Your task to perform on an android device: Show the shopping cart on costco.com. Image 0: 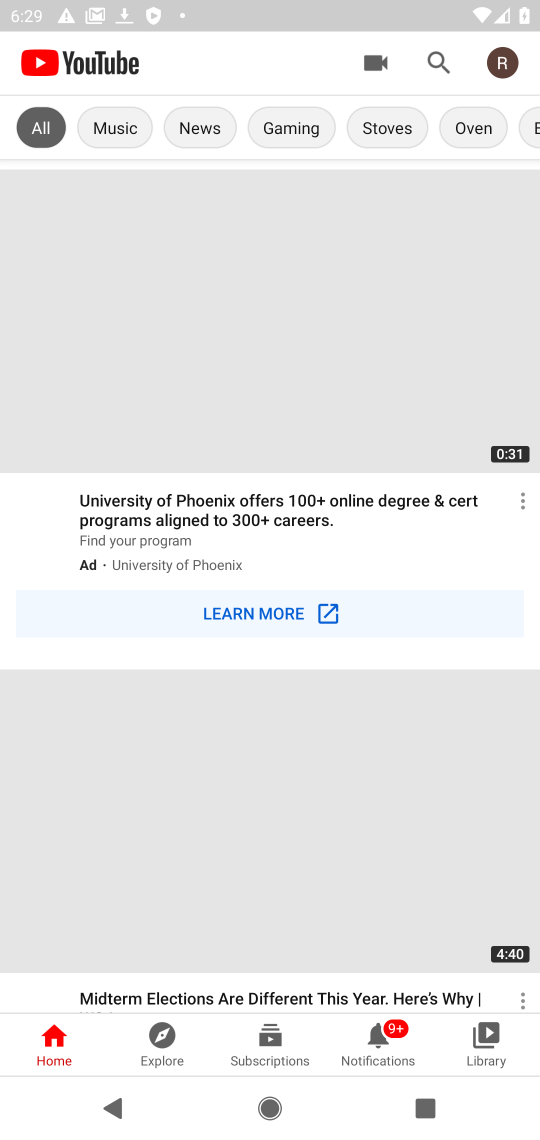
Step 0: press home button
Your task to perform on an android device: Show the shopping cart on costco.com. Image 1: 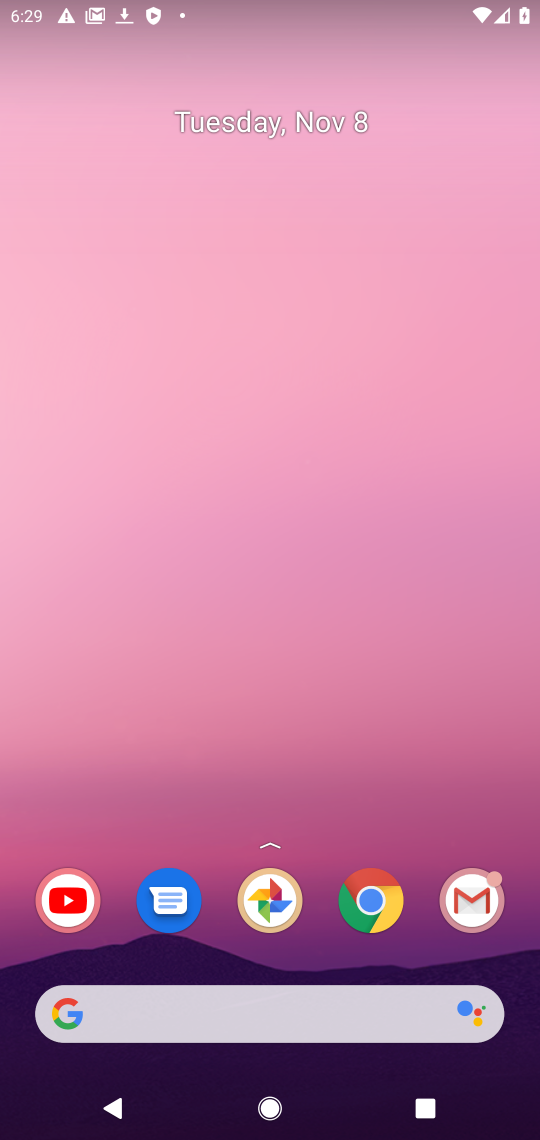
Step 1: click (362, 906)
Your task to perform on an android device: Show the shopping cart on costco.com. Image 2: 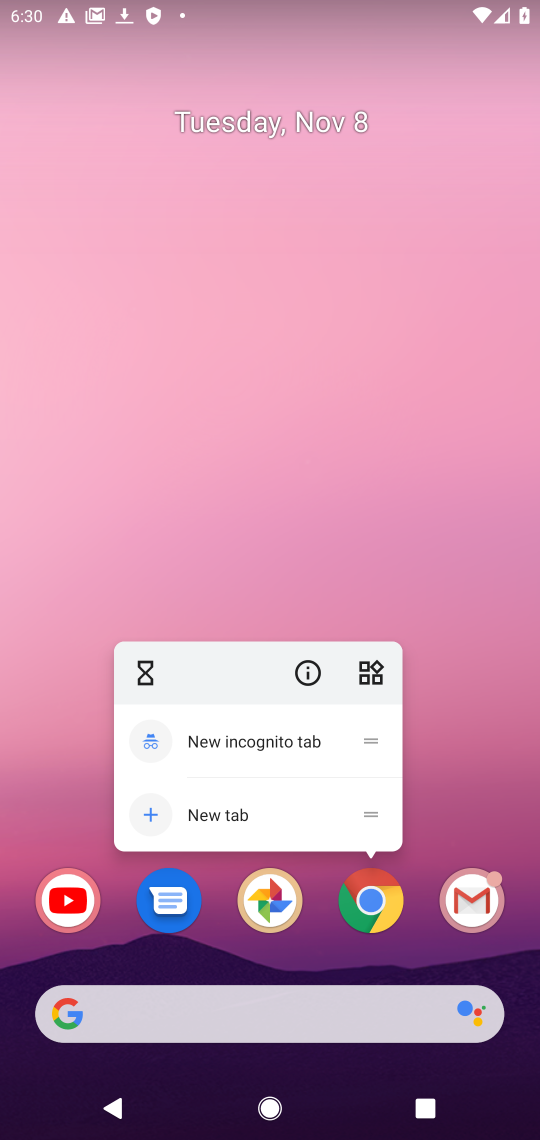
Step 2: click (387, 906)
Your task to perform on an android device: Show the shopping cart on costco.com. Image 3: 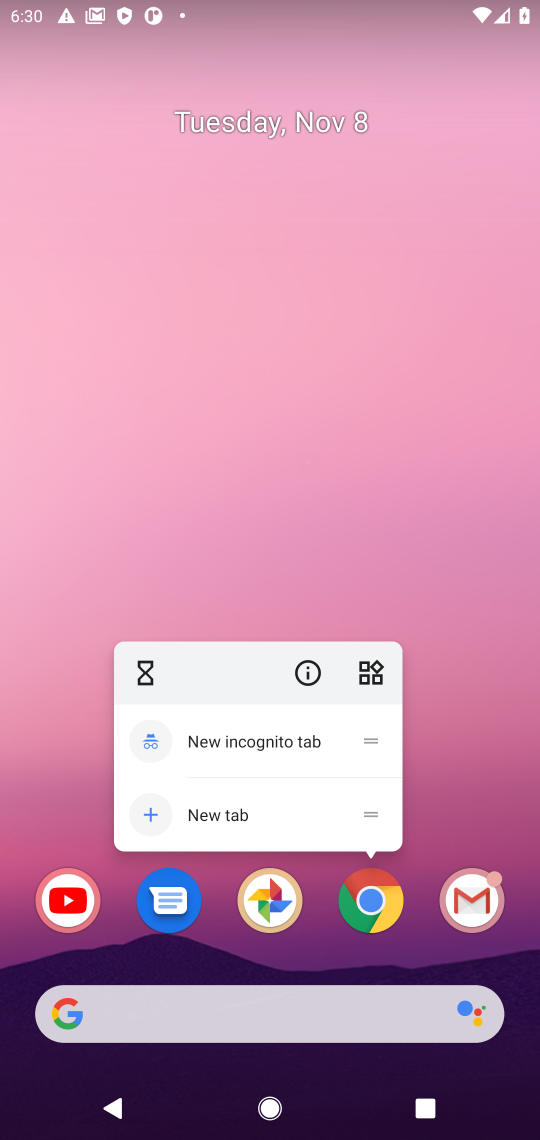
Step 3: click (393, 901)
Your task to perform on an android device: Show the shopping cart on costco.com. Image 4: 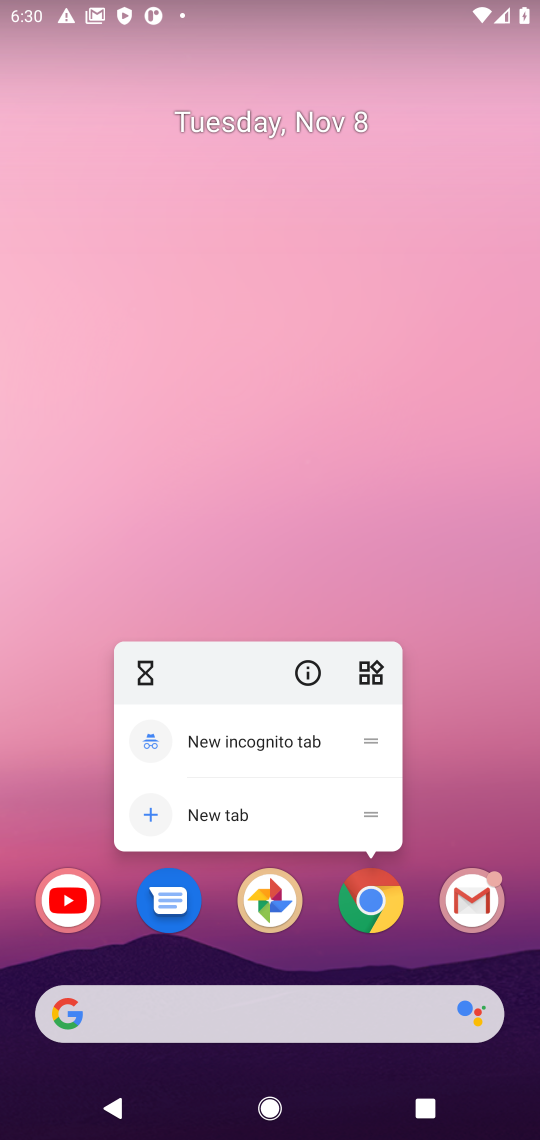
Step 4: click (366, 916)
Your task to perform on an android device: Show the shopping cart on costco.com. Image 5: 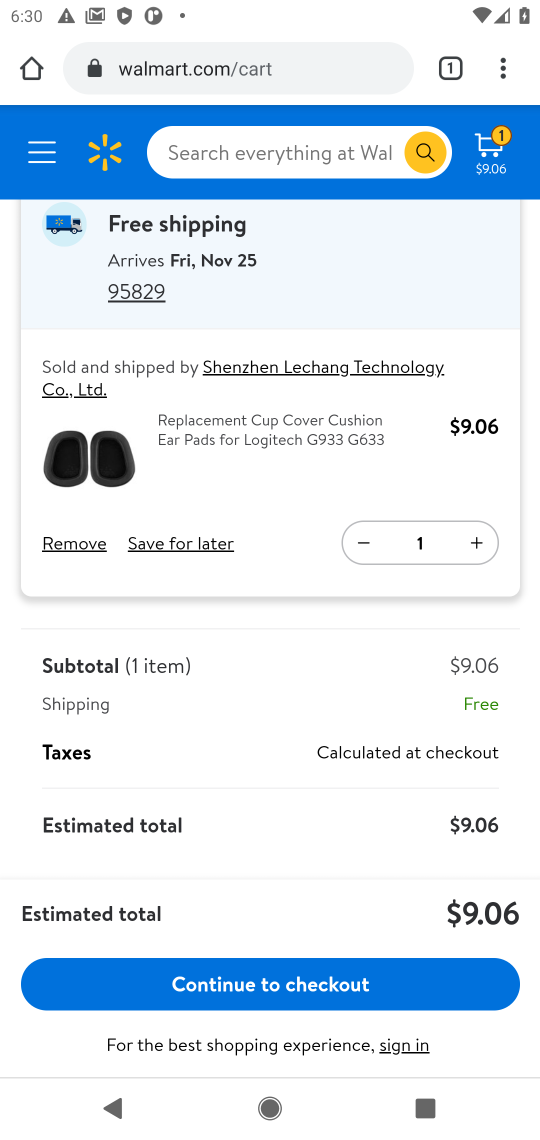
Step 5: click (207, 67)
Your task to perform on an android device: Show the shopping cart on costco.com. Image 6: 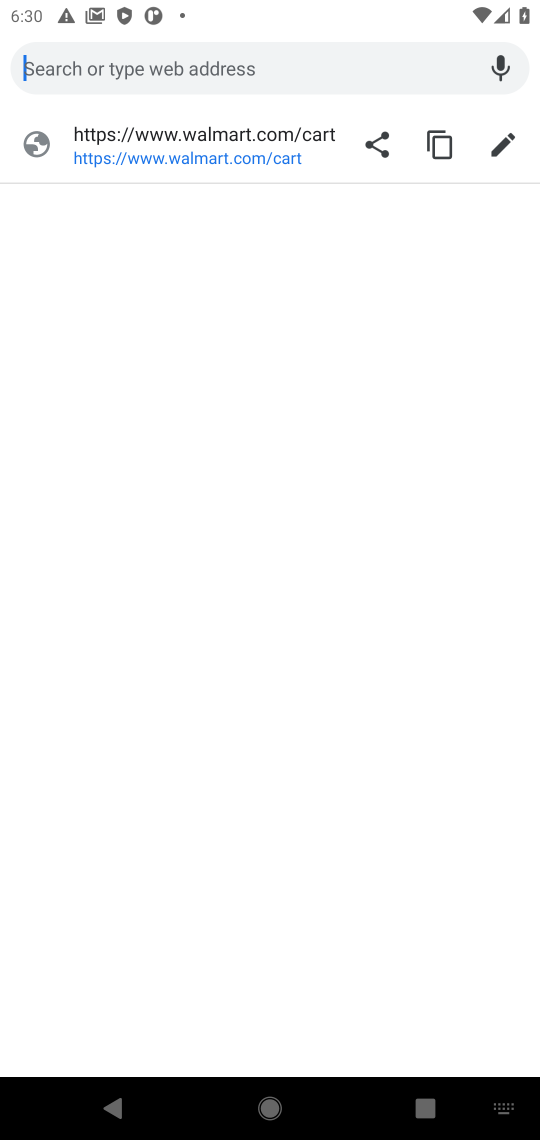
Step 6: type "costco"
Your task to perform on an android device: Show the shopping cart on costco.com. Image 7: 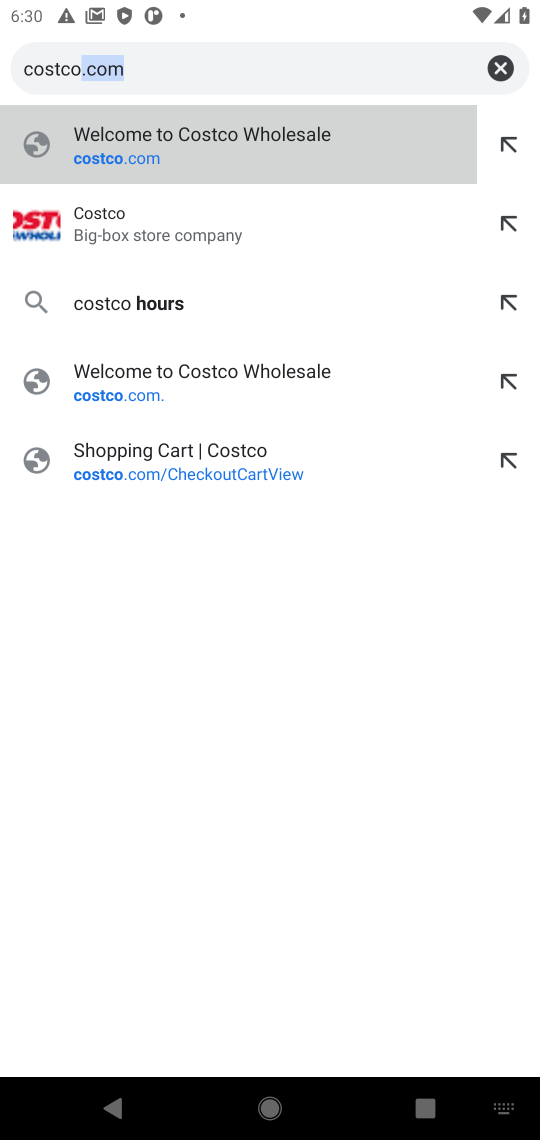
Step 7: type ""
Your task to perform on an android device: Show the shopping cart on costco.com. Image 8: 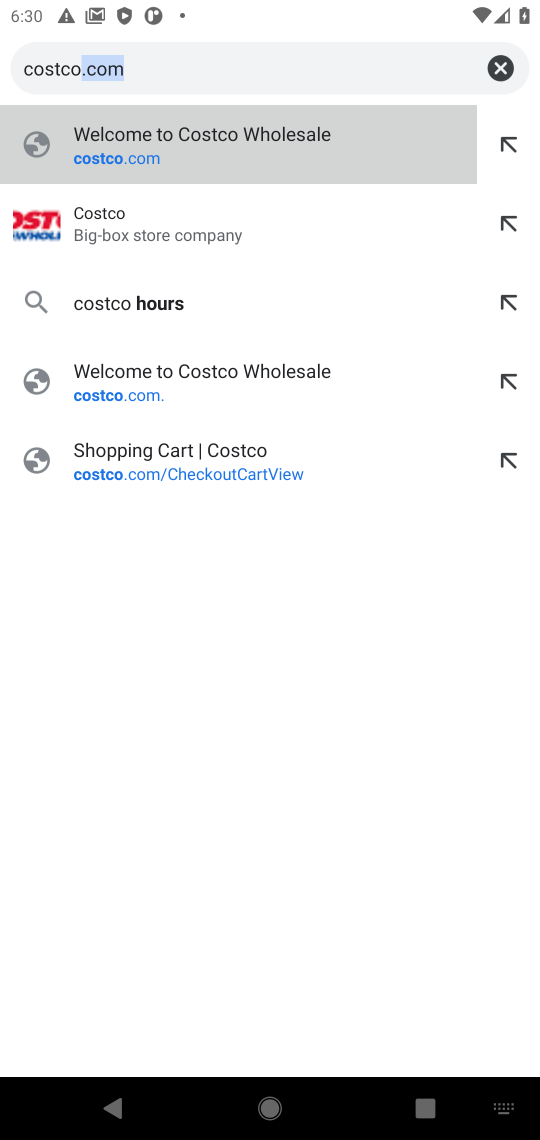
Step 8: click (101, 221)
Your task to perform on an android device: Show the shopping cart on costco.com. Image 9: 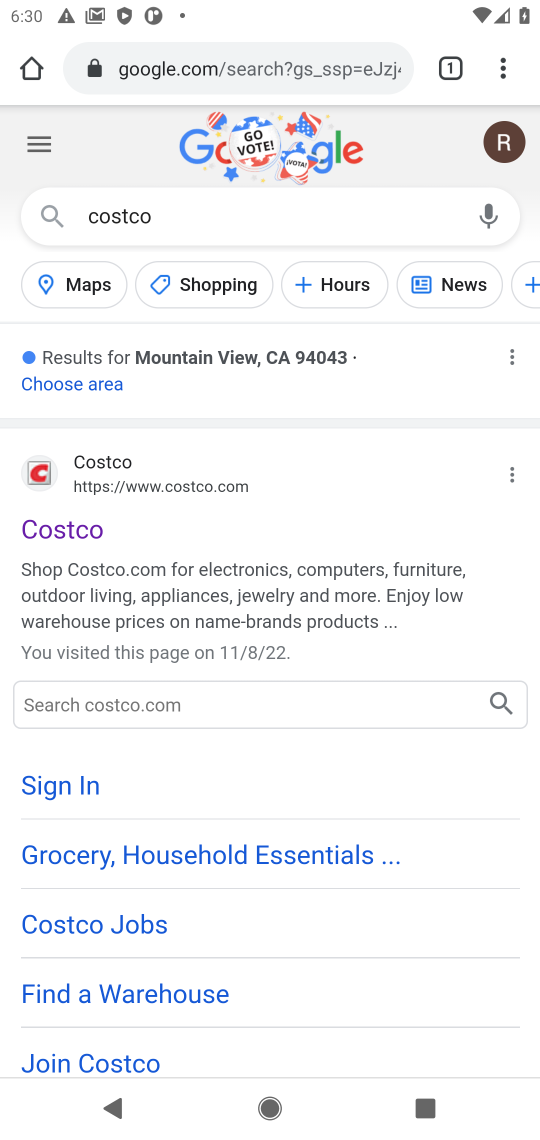
Step 9: click (114, 463)
Your task to perform on an android device: Show the shopping cart on costco.com. Image 10: 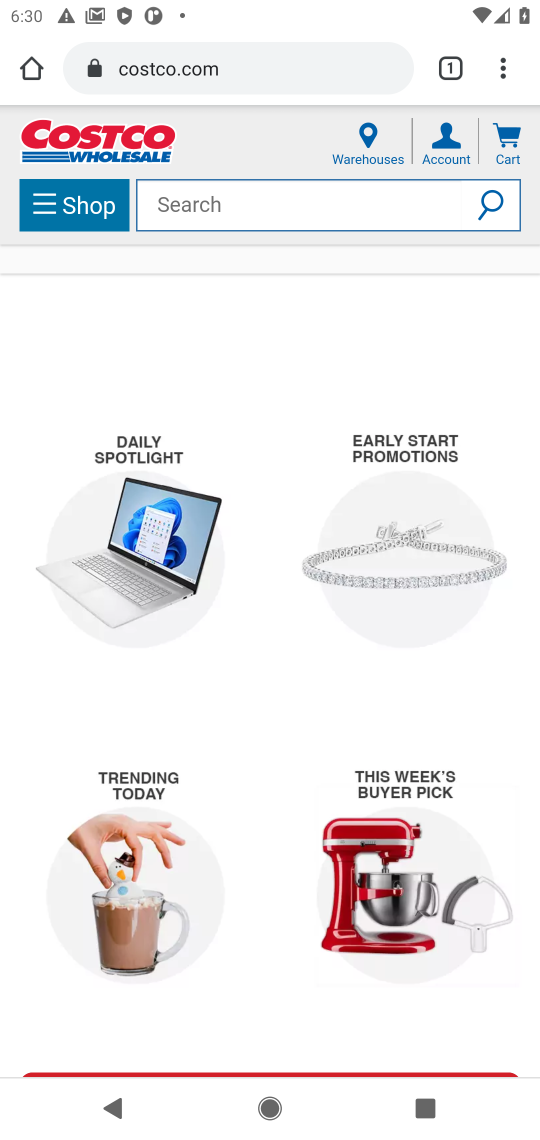
Step 10: click (516, 152)
Your task to perform on an android device: Show the shopping cart on costco.com. Image 11: 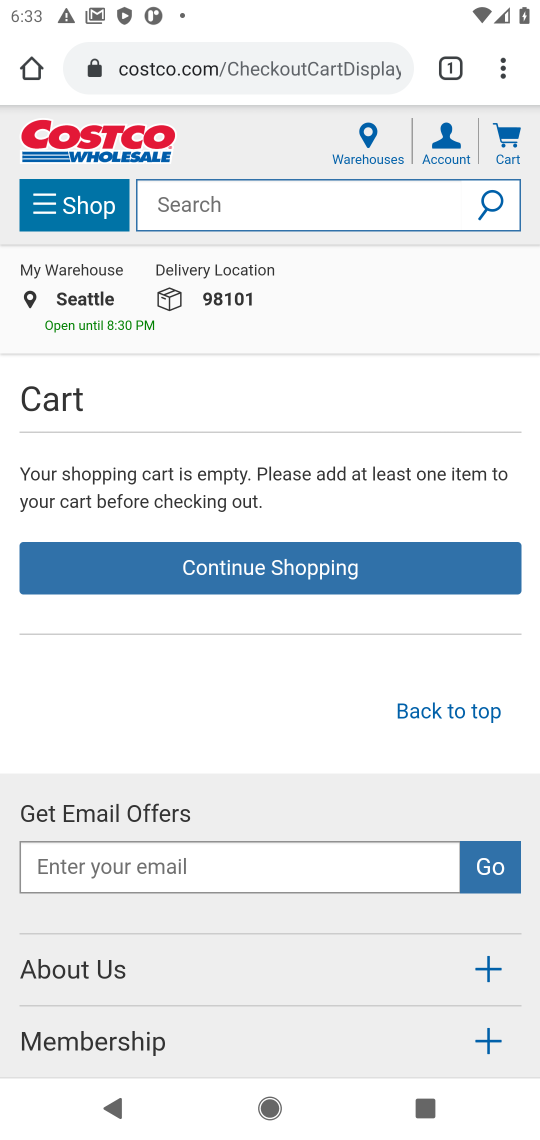
Step 11: task complete